Your task to perform on an android device: Open Google Chrome and open the bookmarks view Image 0: 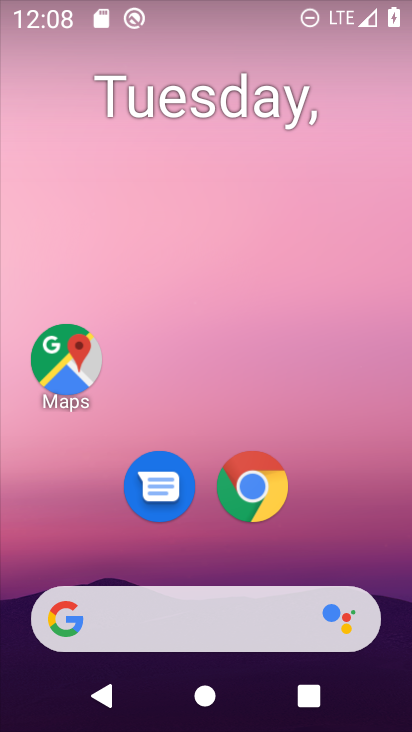
Step 0: click (254, 488)
Your task to perform on an android device: Open Google Chrome and open the bookmarks view Image 1: 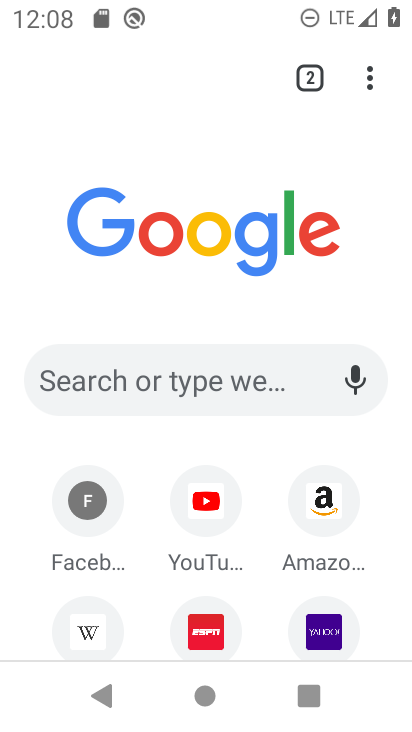
Step 1: click (377, 73)
Your task to perform on an android device: Open Google Chrome and open the bookmarks view Image 2: 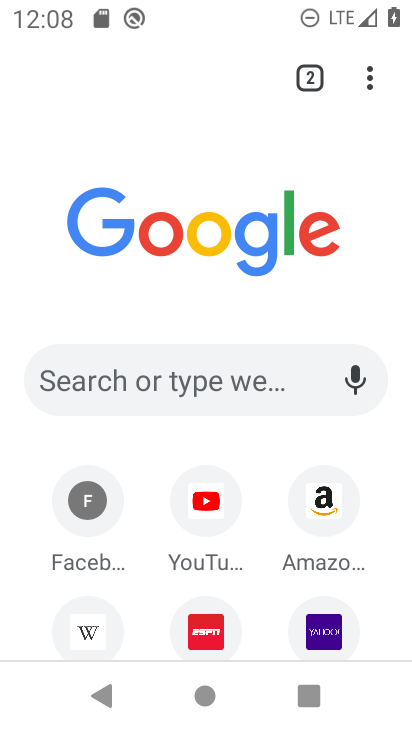
Step 2: click (373, 74)
Your task to perform on an android device: Open Google Chrome and open the bookmarks view Image 3: 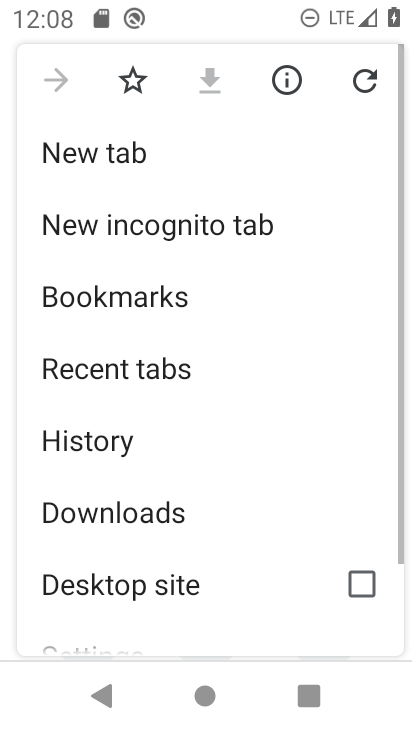
Step 3: click (173, 302)
Your task to perform on an android device: Open Google Chrome and open the bookmarks view Image 4: 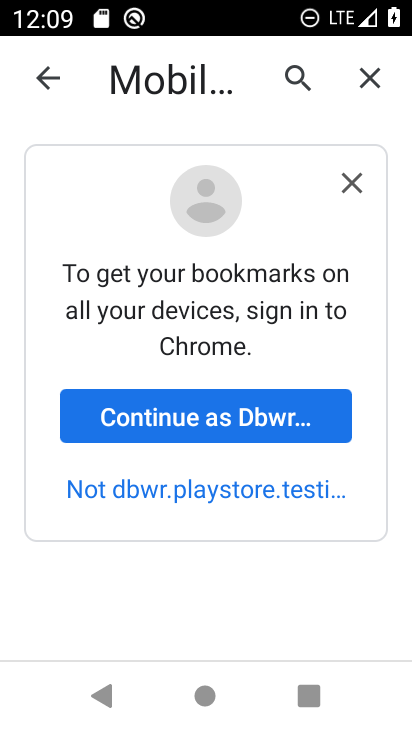
Step 4: click (352, 187)
Your task to perform on an android device: Open Google Chrome and open the bookmarks view Image 5: 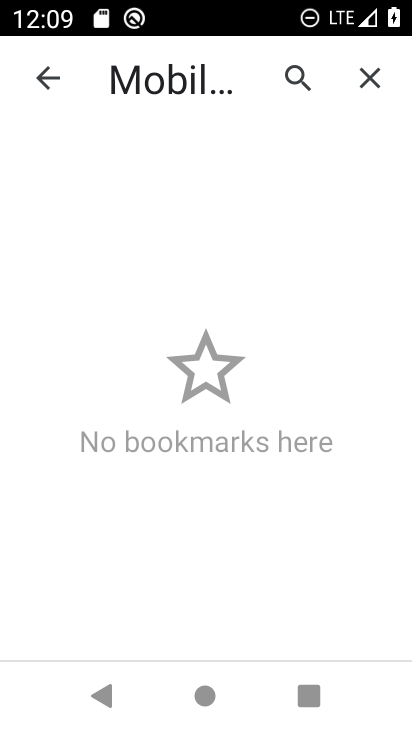
Step 5: task complete